Your task to perform on an android device: toggle translation in the chrome app Image 0: 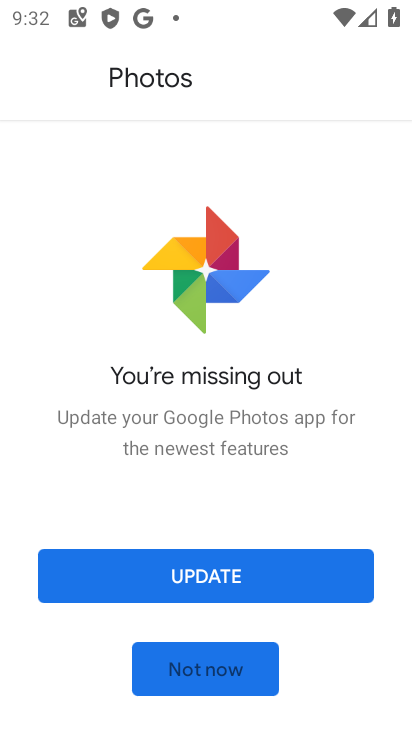
Step 0: press home button
Your task to perform on an android device: toggle translation in the chrome app Image 1: 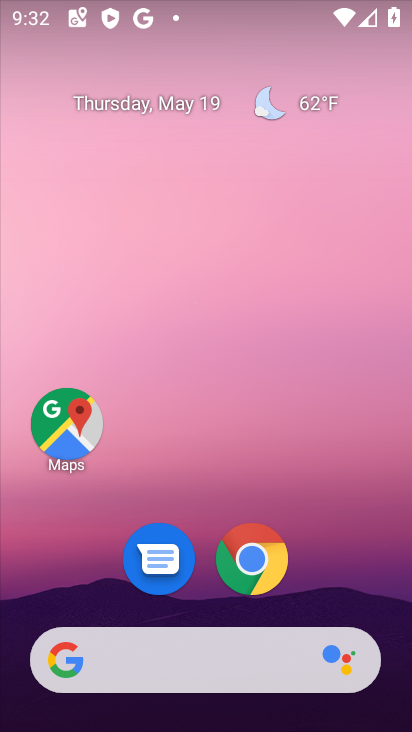
Step 1: click (263, 547)
Your task to perform on an android device: toggle translation in the chrome app Image 2: 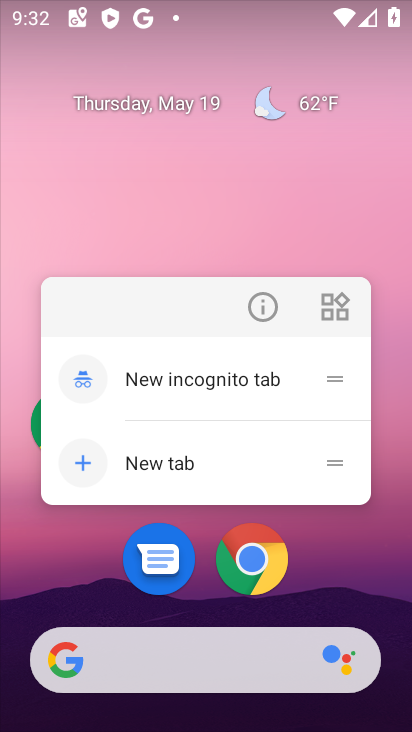
Step 2: click (247, 560)
Your task to perform on an android device: toggle translation in the chrome app Image 3: 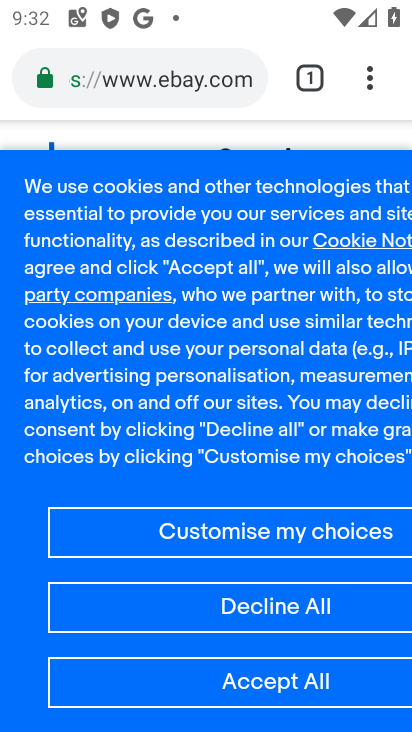
Step 3: click (376, 74)
Your task to perform on an android device: toggle translation in the chrome app Image 4: 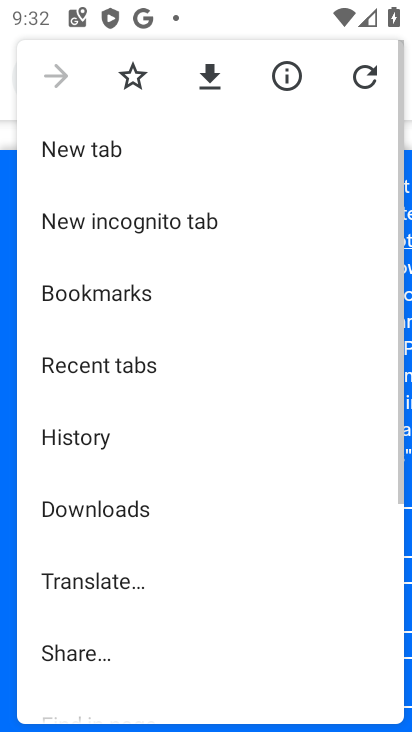
Step 4: drag from (199, 558) to (278, 80)
Your task to perform on an android device: toggle translation in the chrome app Image 5: 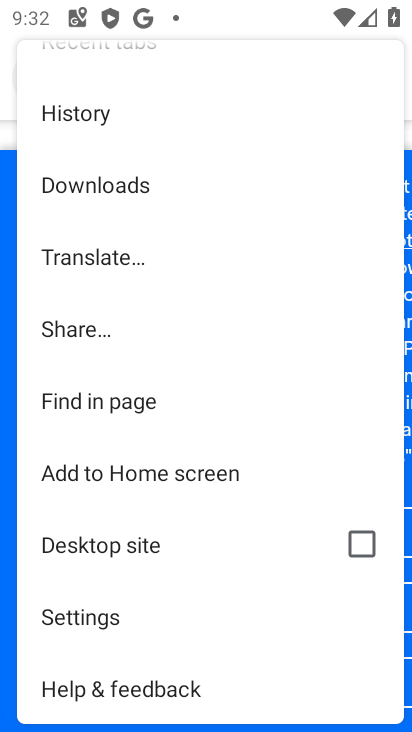
Step 5: drag from (202, 623) to (231, 320)
Your task to perform on an android device: toggle translation in the chrome app Image 6: 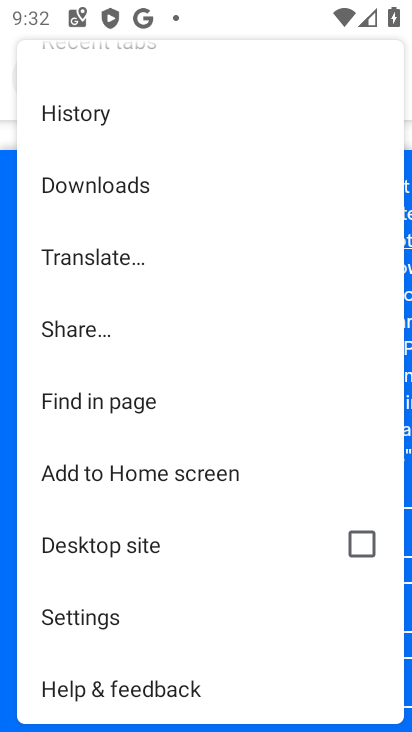
Step 6: click (125, 603)
Your task to perform on an android device: toggle translation in the chrome app Image 7: 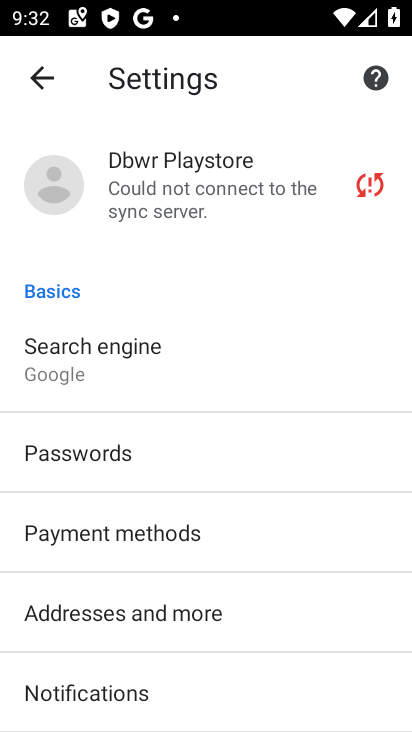
Step 7: drag from (141, 645) to (155, 317)
Your task to perform on an android device: toggle translation in the chrome app Image 8: 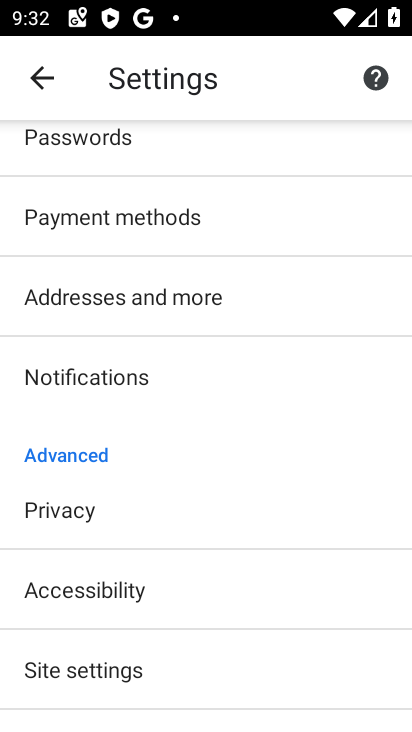
Step 8: drag from (166, 644) to (217, 274)
Your task to perform on an android device: toggle translation in the chrome app Image 9: 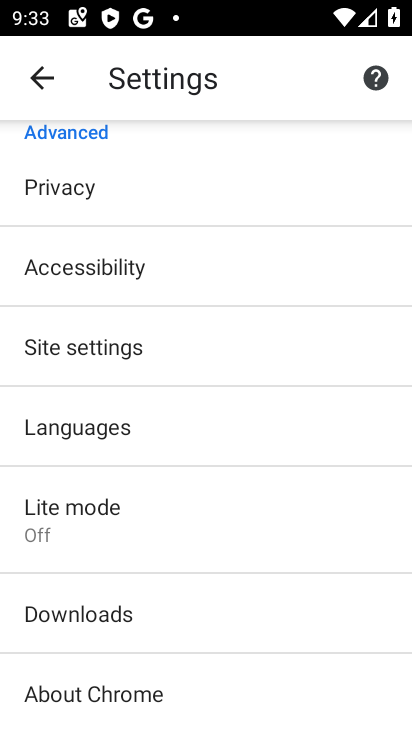
Step 9: click (63, 436)
Your task to perform on an android device: toggle translation in the chrome app Image 10: 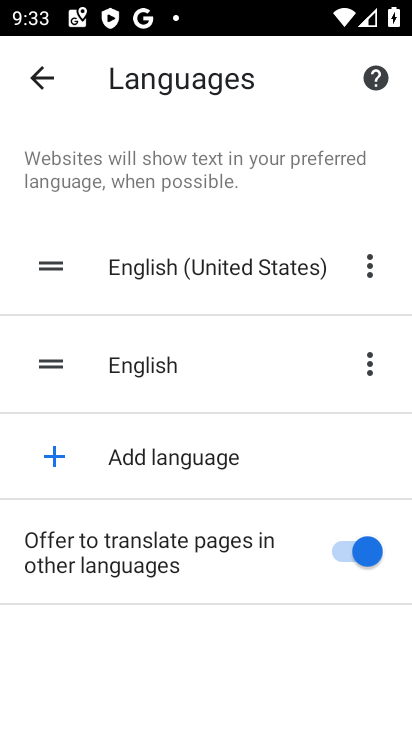
Step 10: click (351, 553)
Your task to perform on an android device: toggle translation in the chrome app Image 11: 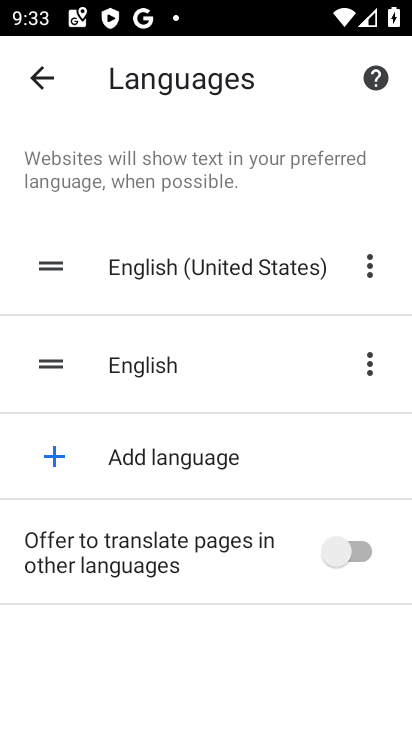
Step 11: task complete